Your task to perform on an android device: Open Google Maps Image 0: 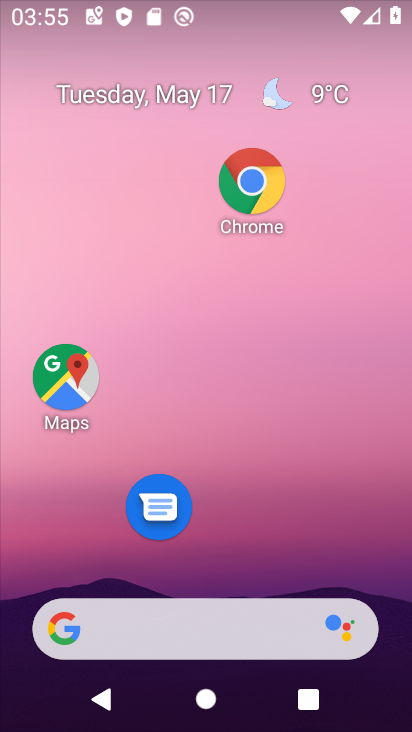
Step 0: click (75, 379)
Your task to perform on an android device: Open Google Maps Image 1: 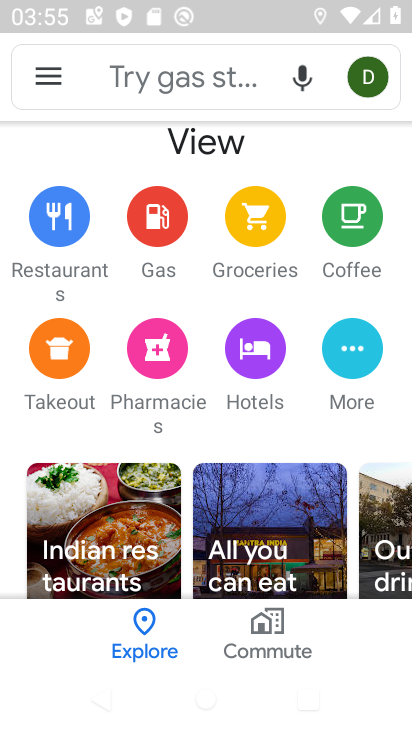
Step 1: task complete